Your task to perform on an android device: Go to Android settings Image 0: 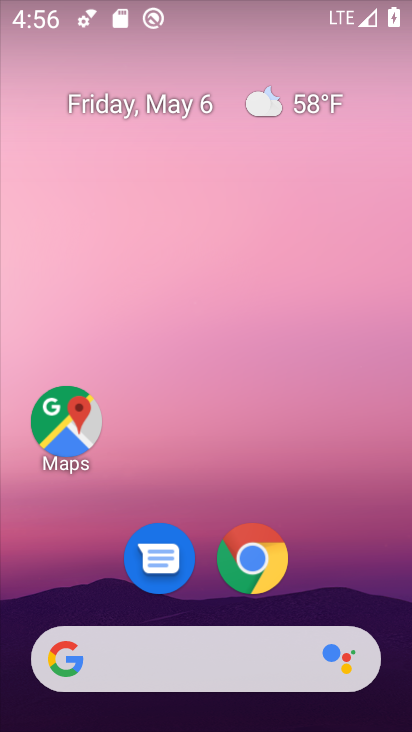
Step 0: drag from (304, 627) to (300, 7)
Your task to perform on an android device: Go to Android settings Image 1: 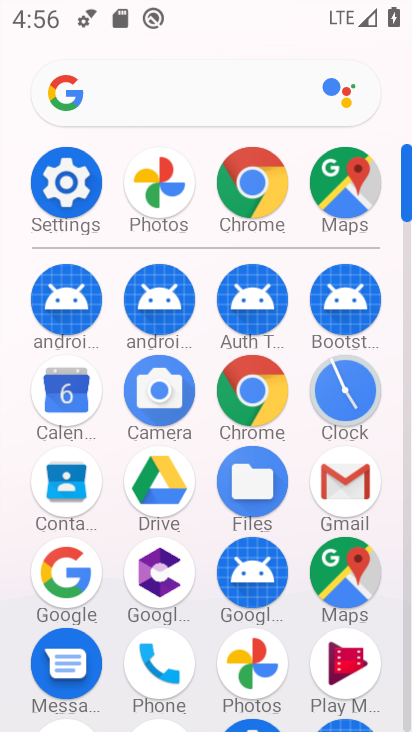
Step 1: click (64, 194)
Your task to perform on an android device: Go to Android settings Image 2: 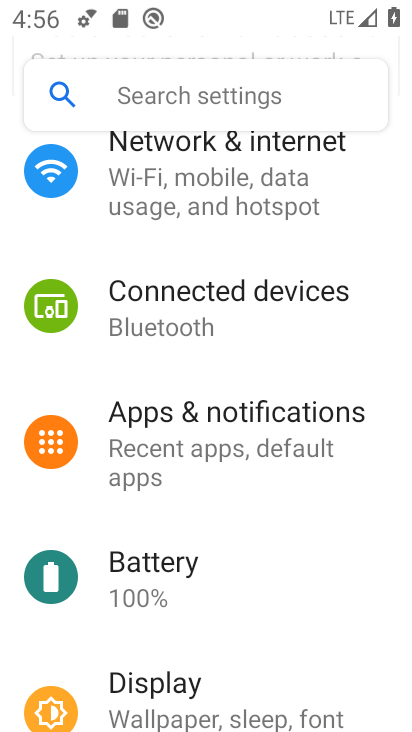
Step 2: drag from (285, 707) to (312, 114)
Your task to perform on an android device: Go to Android settings Image 3: 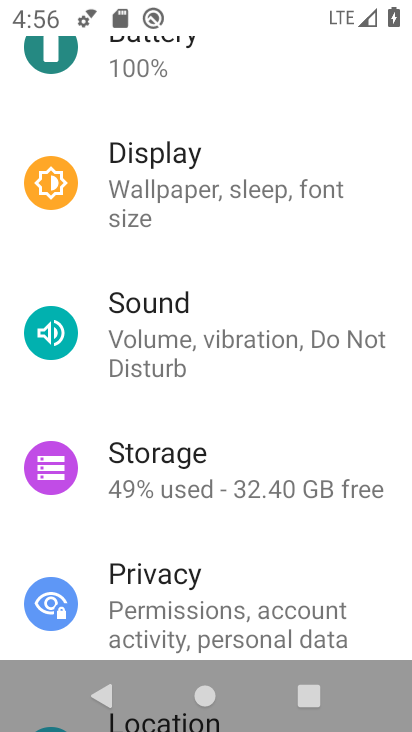
Step 3: drag from (320, 620) to (369, 18)
Your task to perform on an android device: Go to Android settings Image 4: 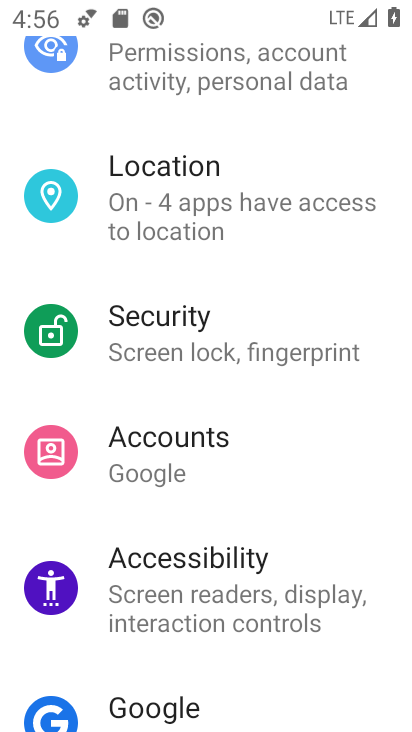
Step 4: drag from (306, 685) to (300, 109)
Your task to perform on an android device: Go to Android settings Image 5: 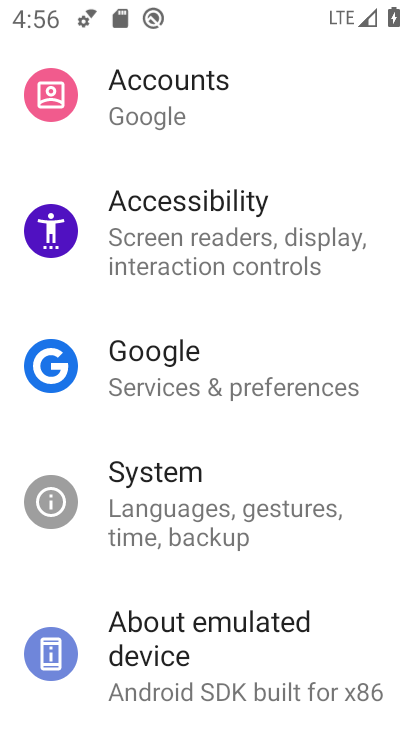
Step 5: click (224, 668)
Your task to perform on an android device: Go to Android settings Image 6: 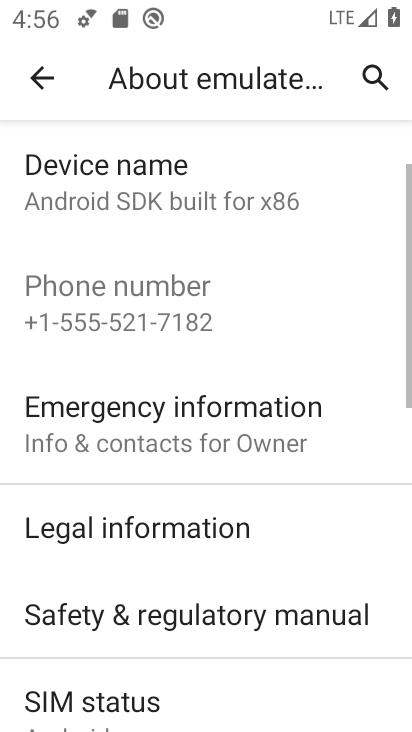
Step 6: drag from (226, 668) to (215, 84)
Your task to perform on an android device: Go to Android settings Image 7: 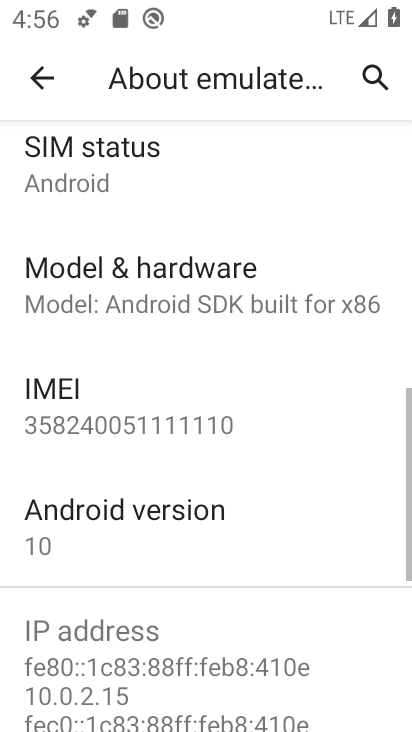
Step 7: click (222, 535)
Your task to perform on an android device: Go to Android settings Image 8: 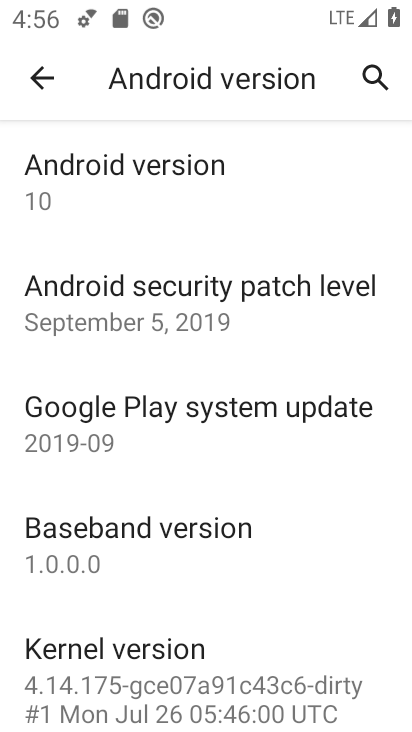
Step 8: task complete